Your task to perform on an android device: Go to wifi settings Image 0: 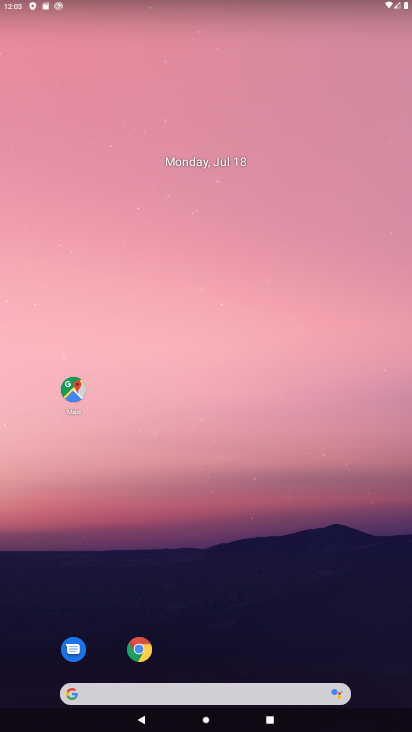
Step 0: drag from (90, 619) to (249, 191)
Your task to perform on an android device: Go to wifi settings Image 1: 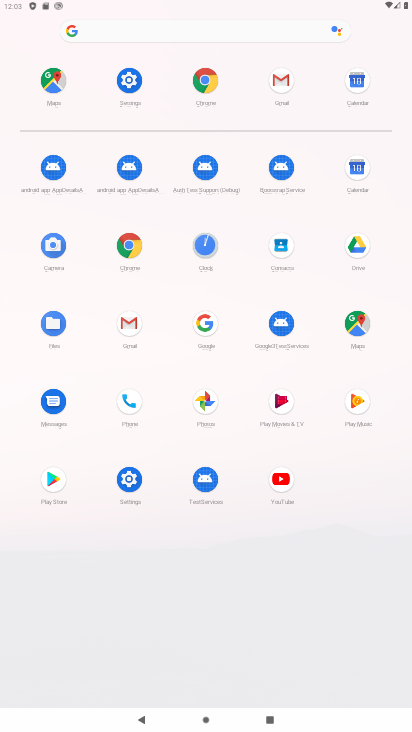
Step 1: click (133, 481)
Your task to perform on an android device: Go to wifi settings Image 2: 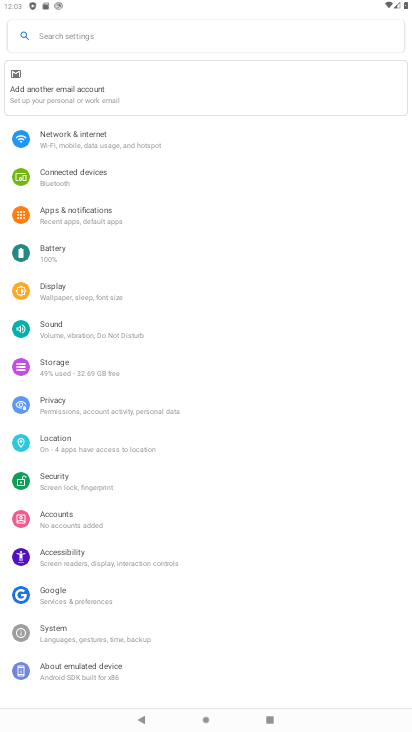
Step 2: click (89, 134)
Your task to perform on an android device: Go to wifi settings Image 3: 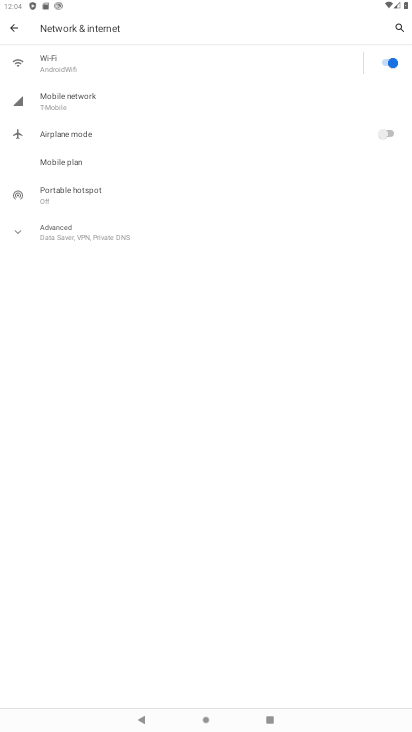
Step 3: task complete